Your task to perform on an android device: View the shopping cart on target.com. Add razer kraken to the cart on target.com Image 0: 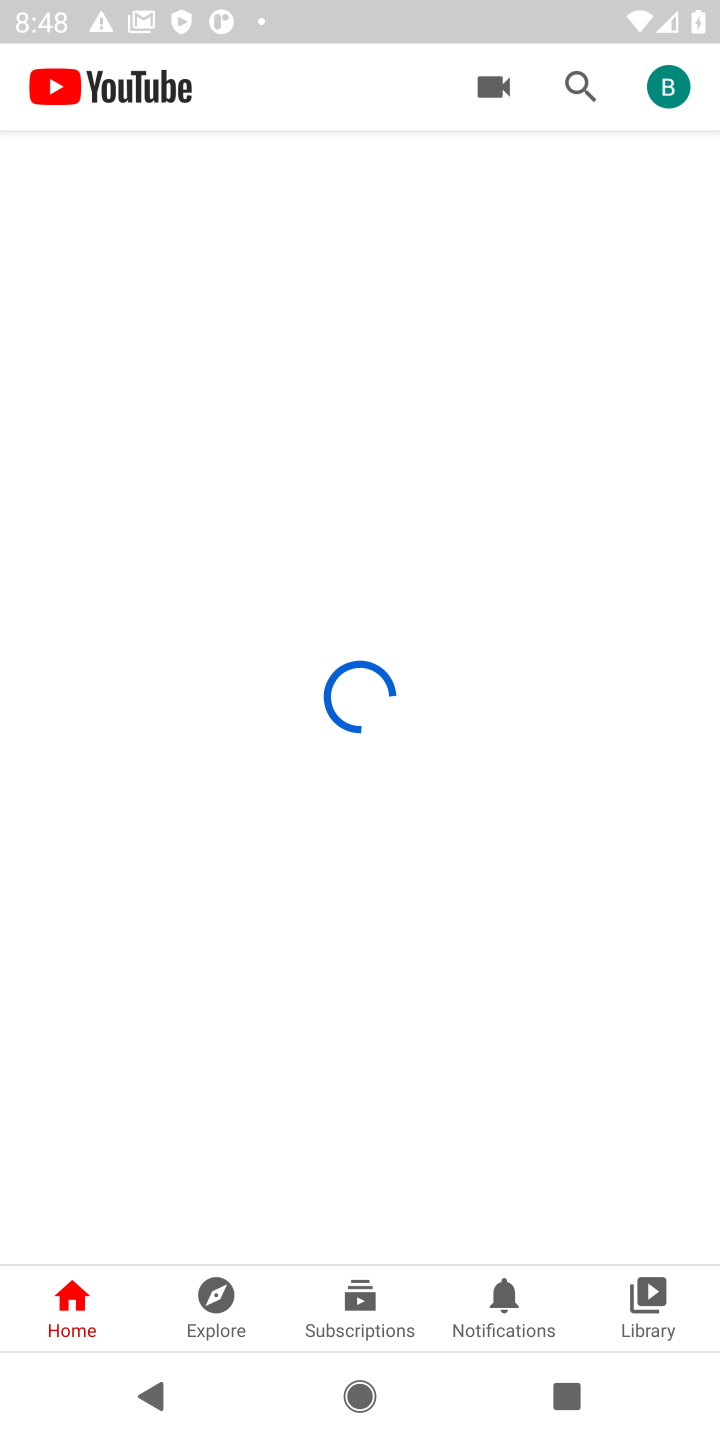
Step 0: press home button
Your task to perform on an android device: View the shopping cart on target.com. Add razer kraken to the cart on target.com Image 1: 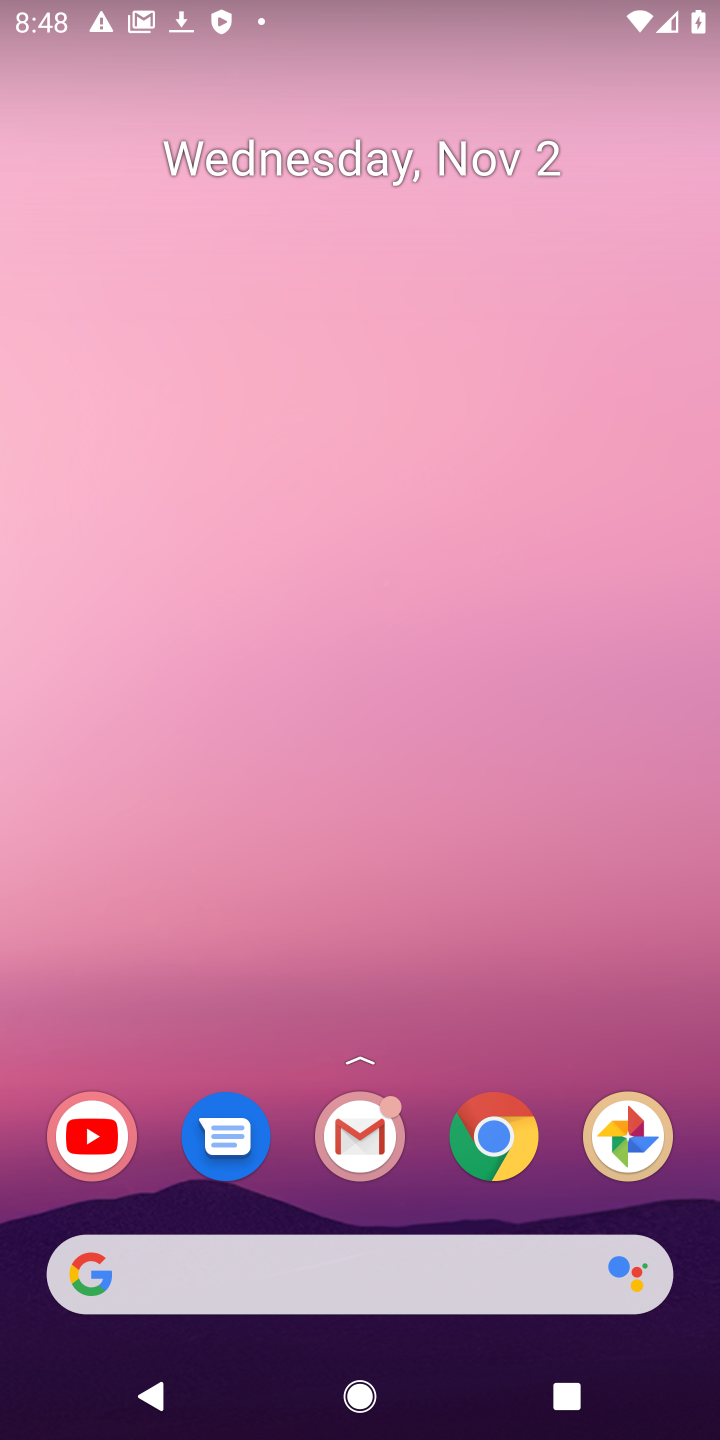
Step 1: drag from (340, 1180) to (382, 131)
Your task to perform on an android device: View the shopping cart on target.com. Add razer kraken to the cart on target.com Image 2: 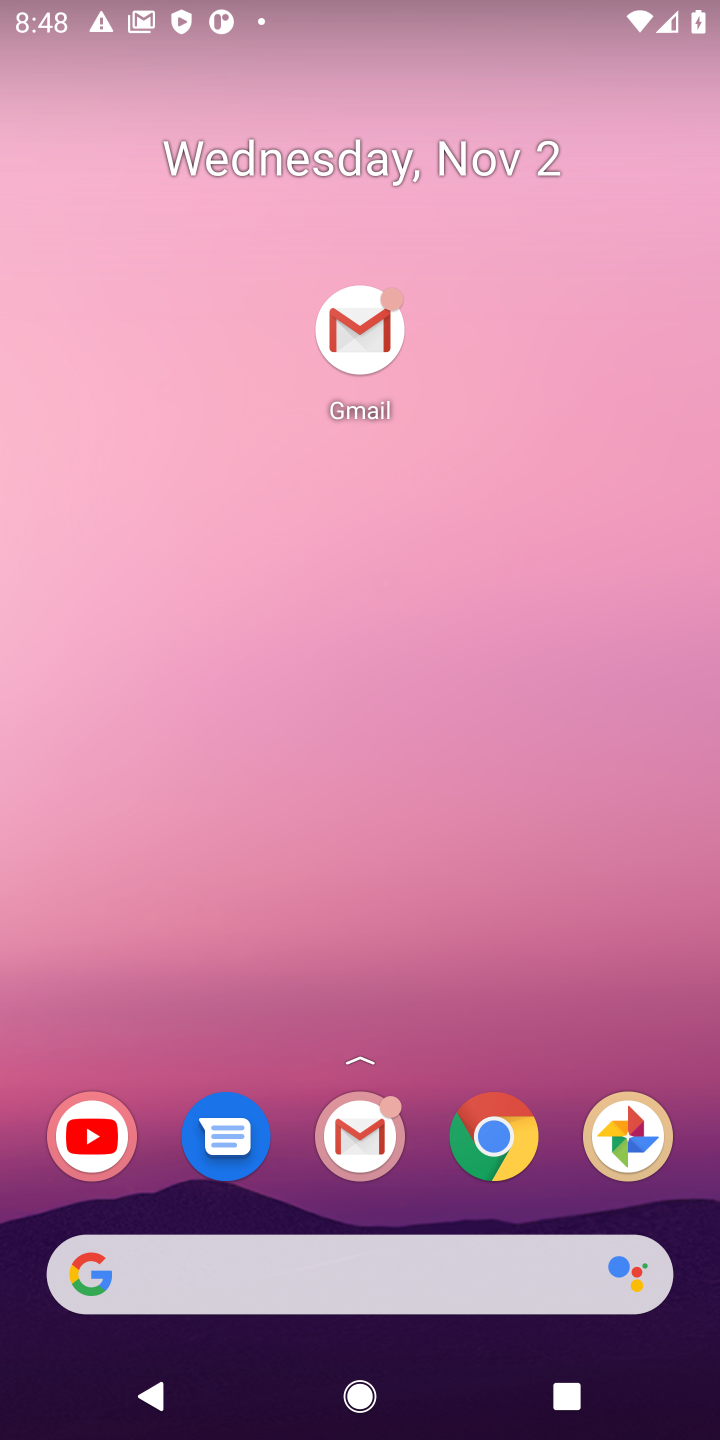
Step 2: drag from (317, 1188) to (331, 816)
Your task to perform on an android device: View the shopping cart on target.com. Add razer kraken to the cart on target.com Image 3: 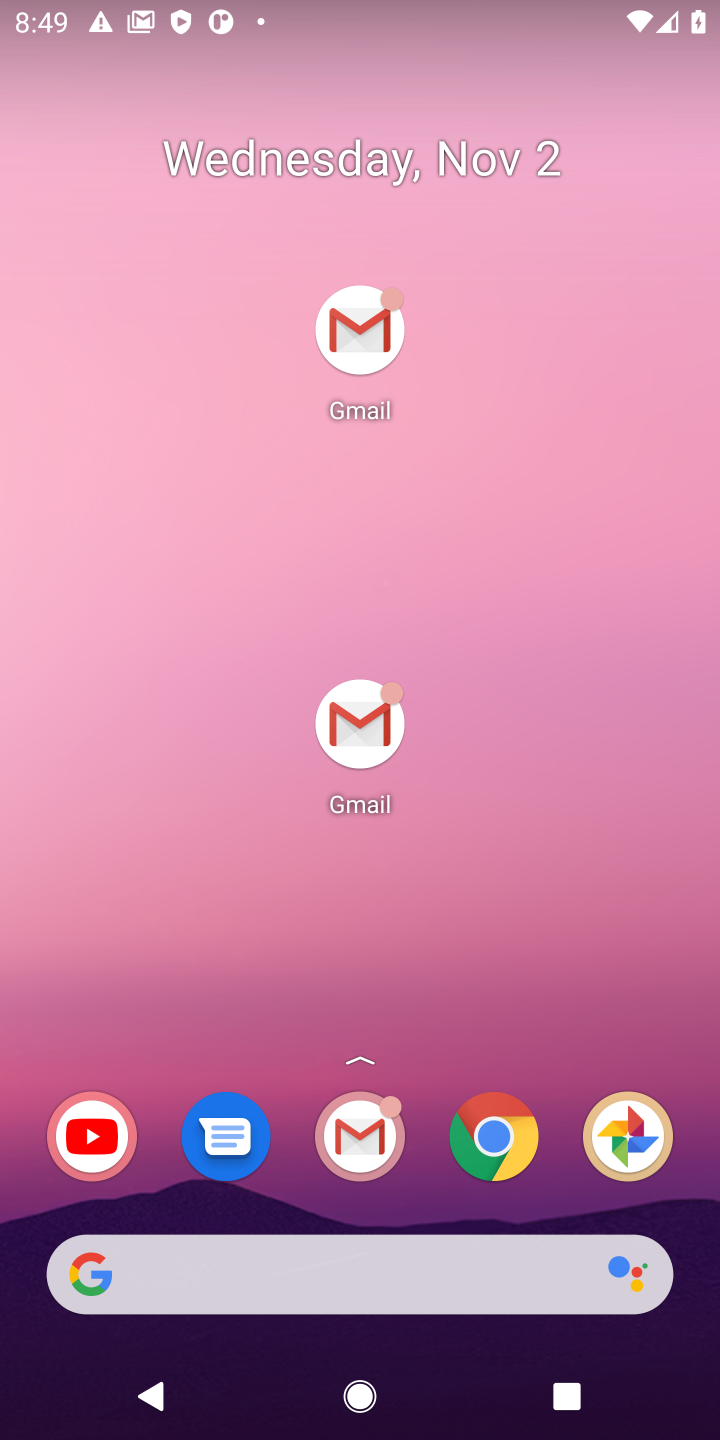
Step 3: drag from (507, 562) to (511, 148)
Your task to perform on an android device: View the shopping cart on target.com. Add razer kraken to the cart on target.com Image 4: 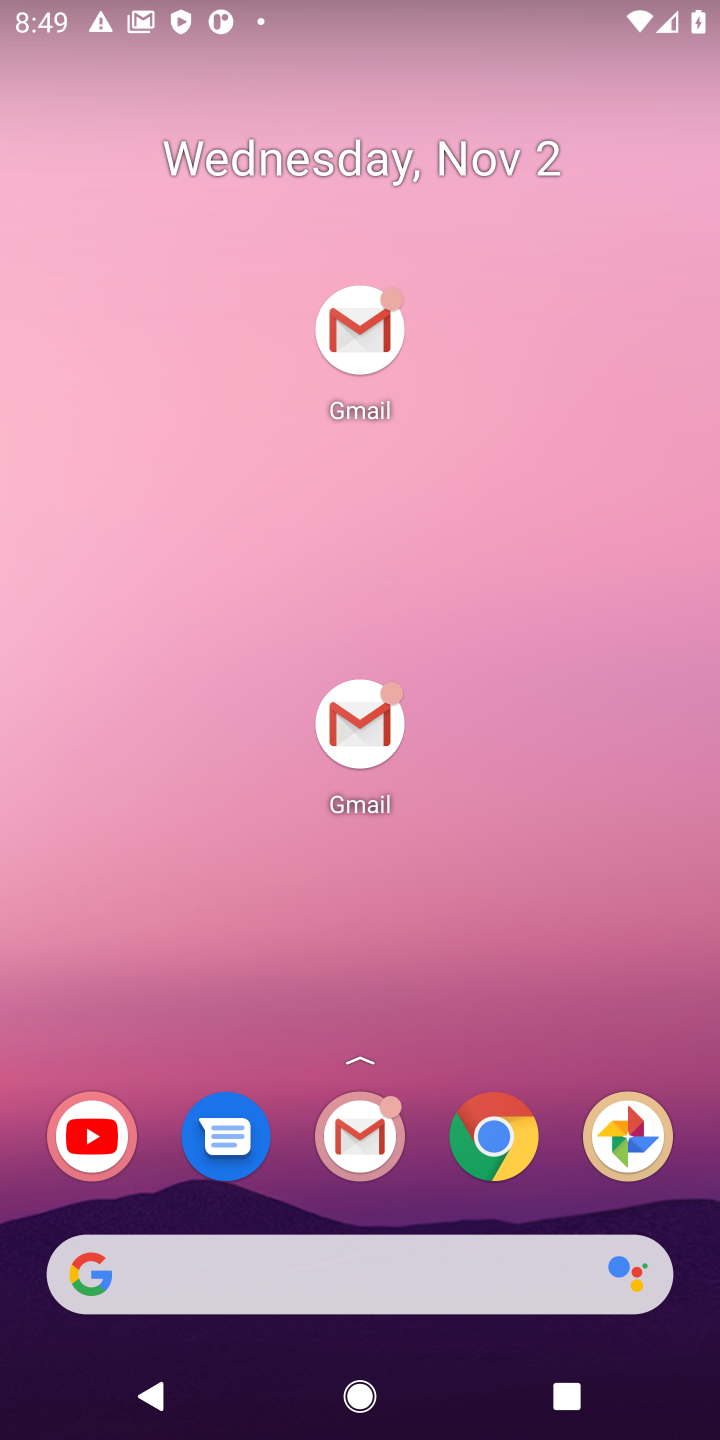
Step 4: drag from (471, 1091) to (490, 232)
Your task to perform on an android device: View the shopping cart on target.com. Add razer kraken to the cart on target.com Image 5: 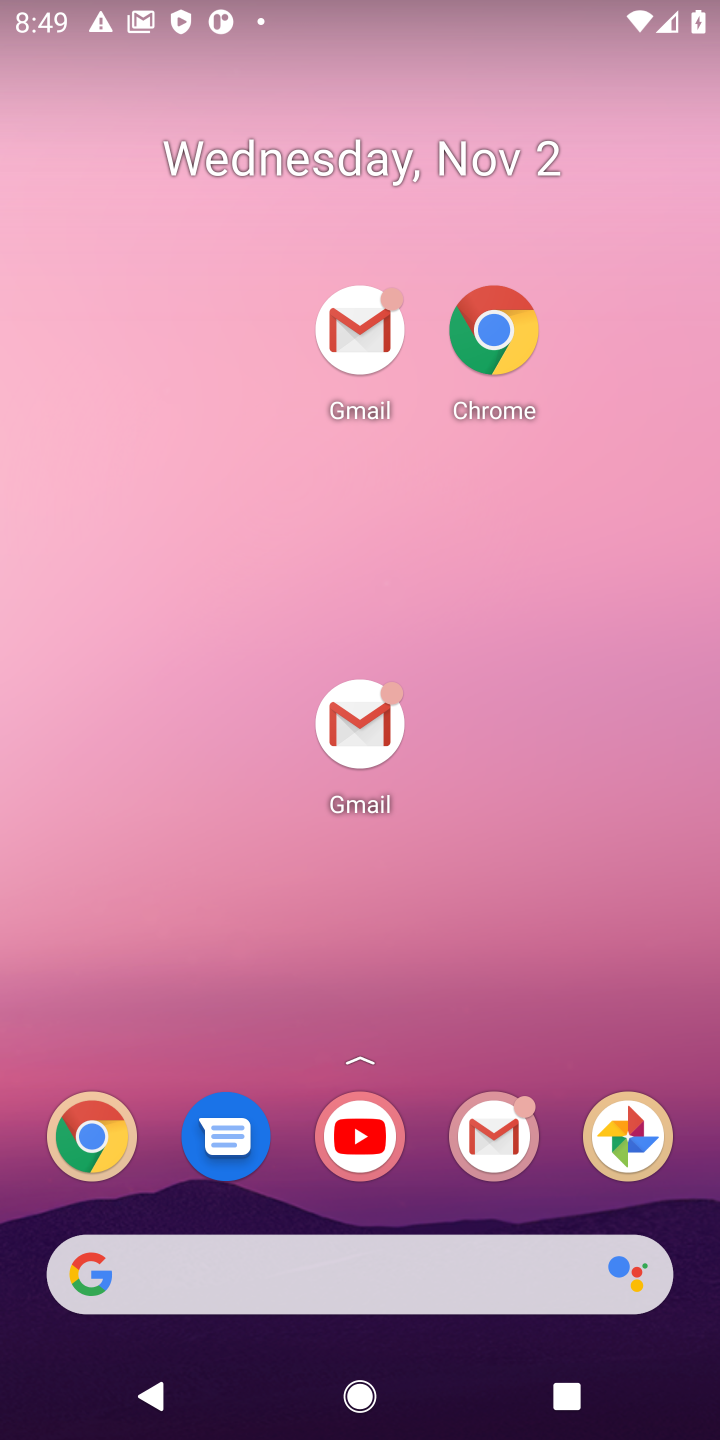
Step 5: drag from (375, 1245) to (320, 208)
Your task to perform on an android device: View the shopping cart on target.com. Add razer kraken to the cart on target.com Image 6: 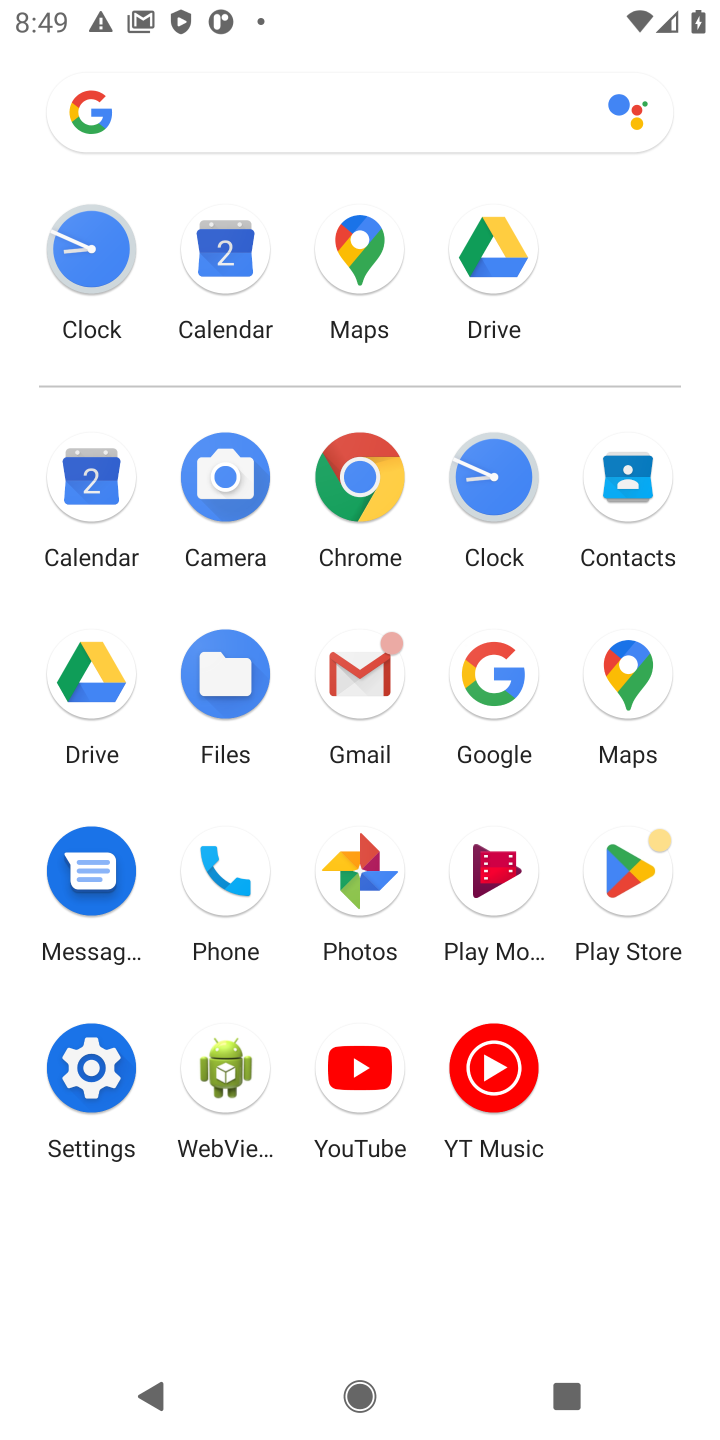
Step 6: click (487, 668)
Your task to perform on an android device: View the shopping cart on target.com. Add razer kraken to the cart on target.com Image 7: 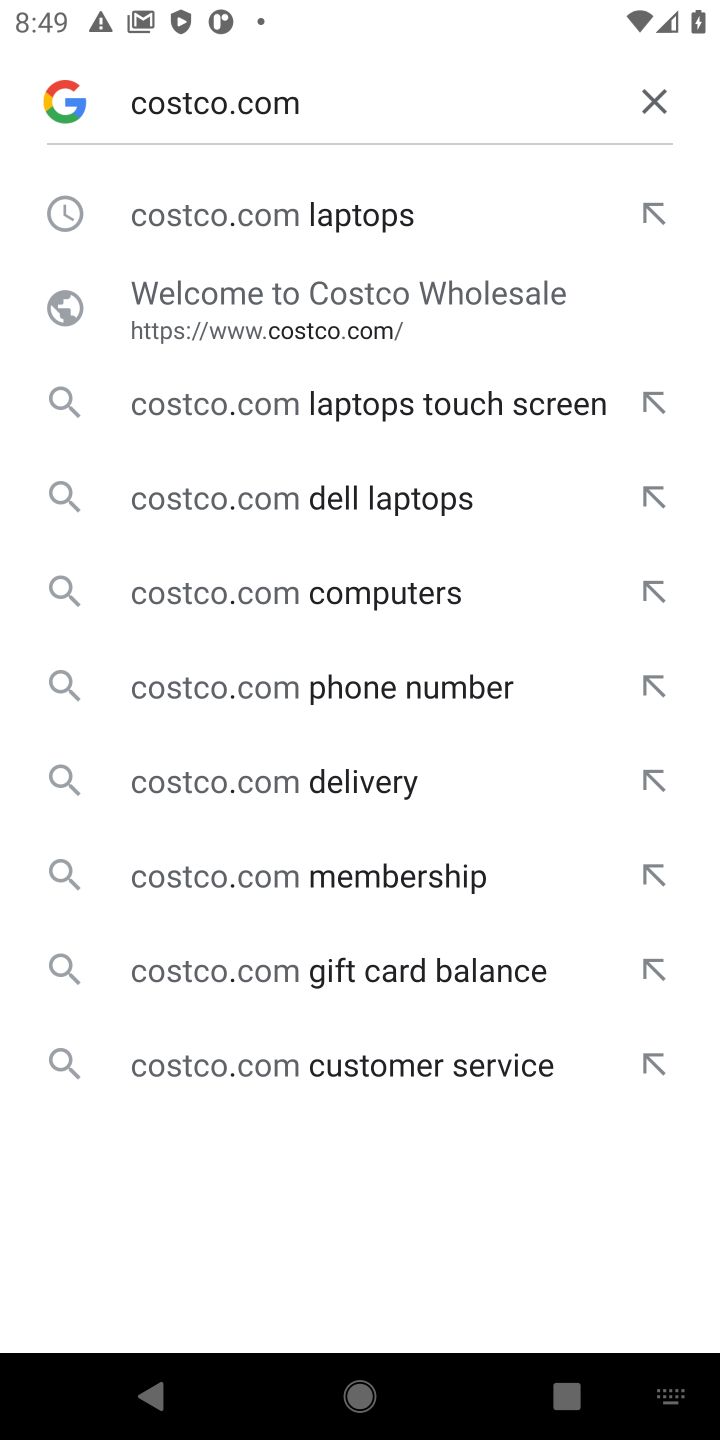
Step 7: click (650, 94)
Your task to perform on an android device: View the shopping cart on target.com. Add razer kraken to the cart on target.com Image 8: 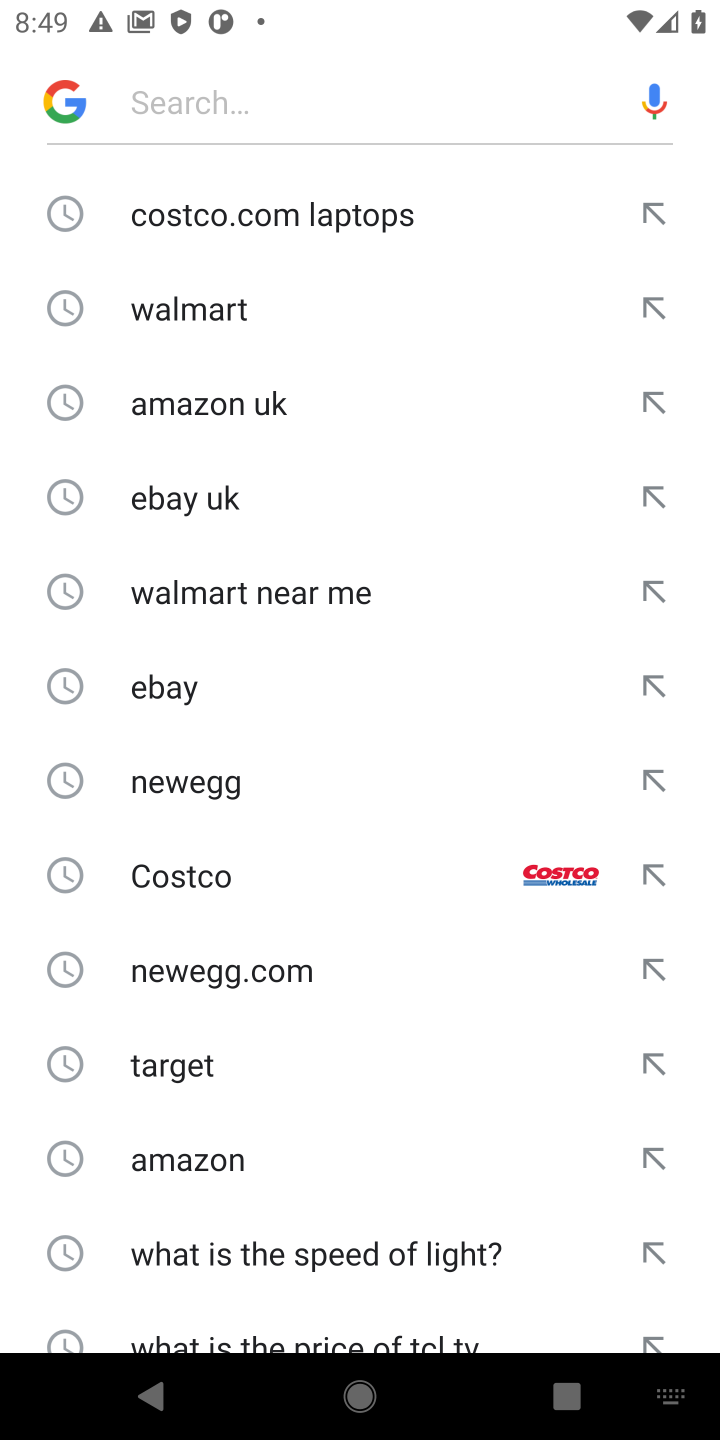
Step 8: click (371, 99)
Your task to perform on an android device: View the shopping cart on target.com. Add razer kraken to the cart on target.com Image 9: 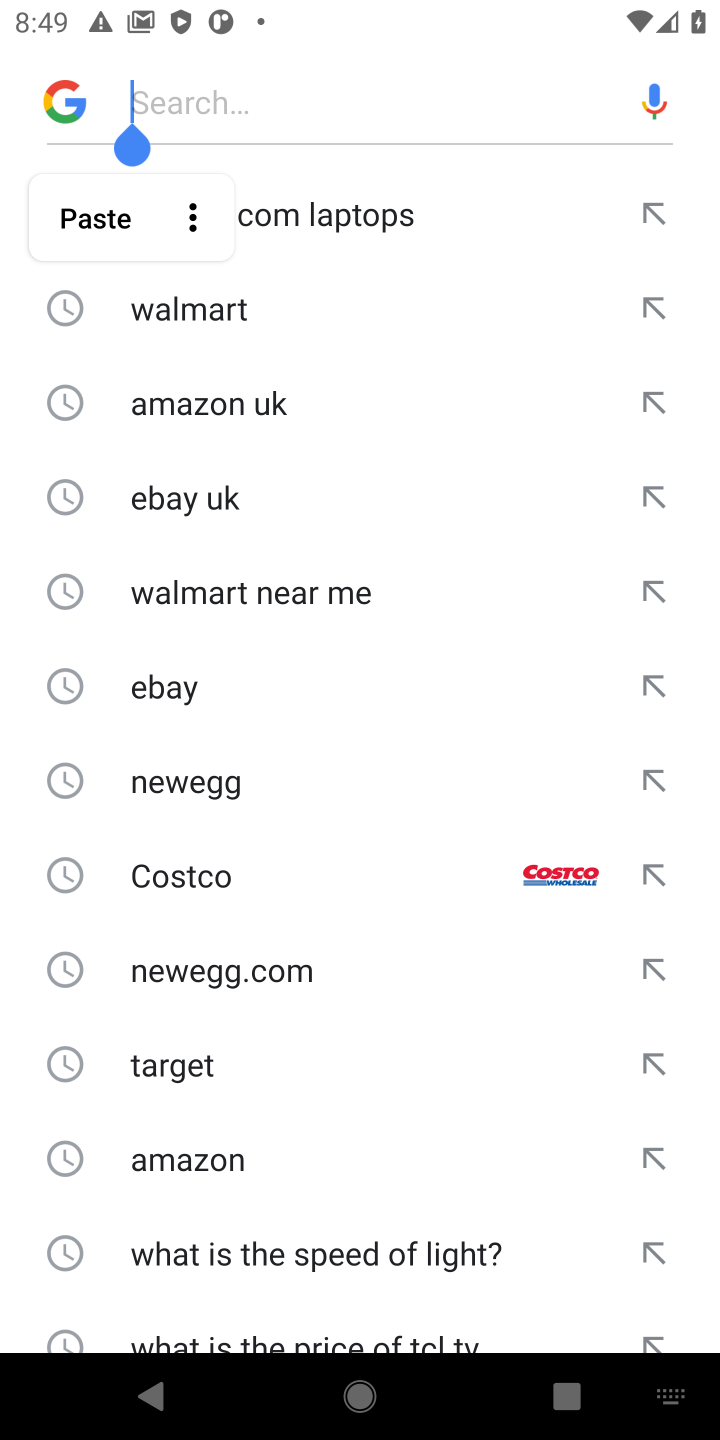
Step 9: type " target.com "
Your task to perform on an android device: View the shopping cart on target.com. Add razer kraken to the cart on target.com Image 10: 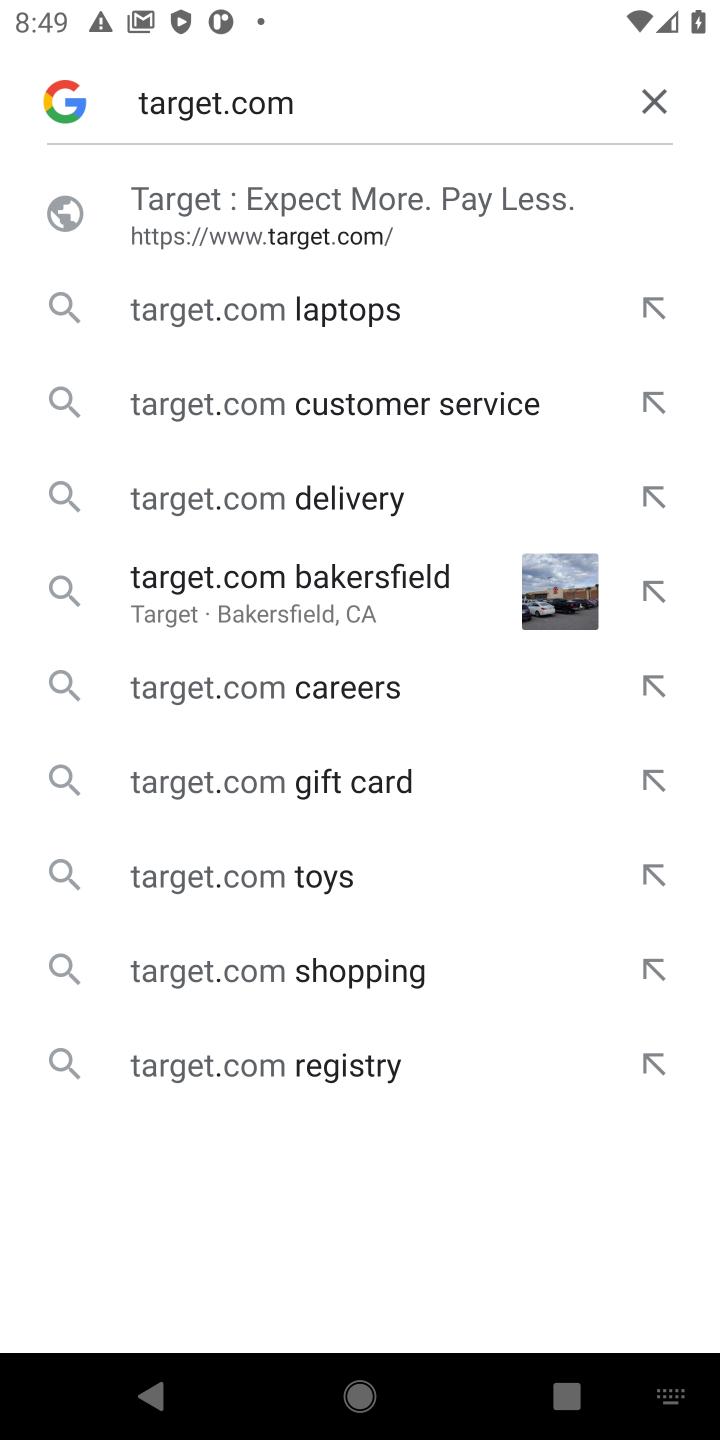
Step 10: click (359, 186)
Your task to perform on an android device: View the shopping cart on target.com. Add razer kraken to the cart on target.com Image 11: 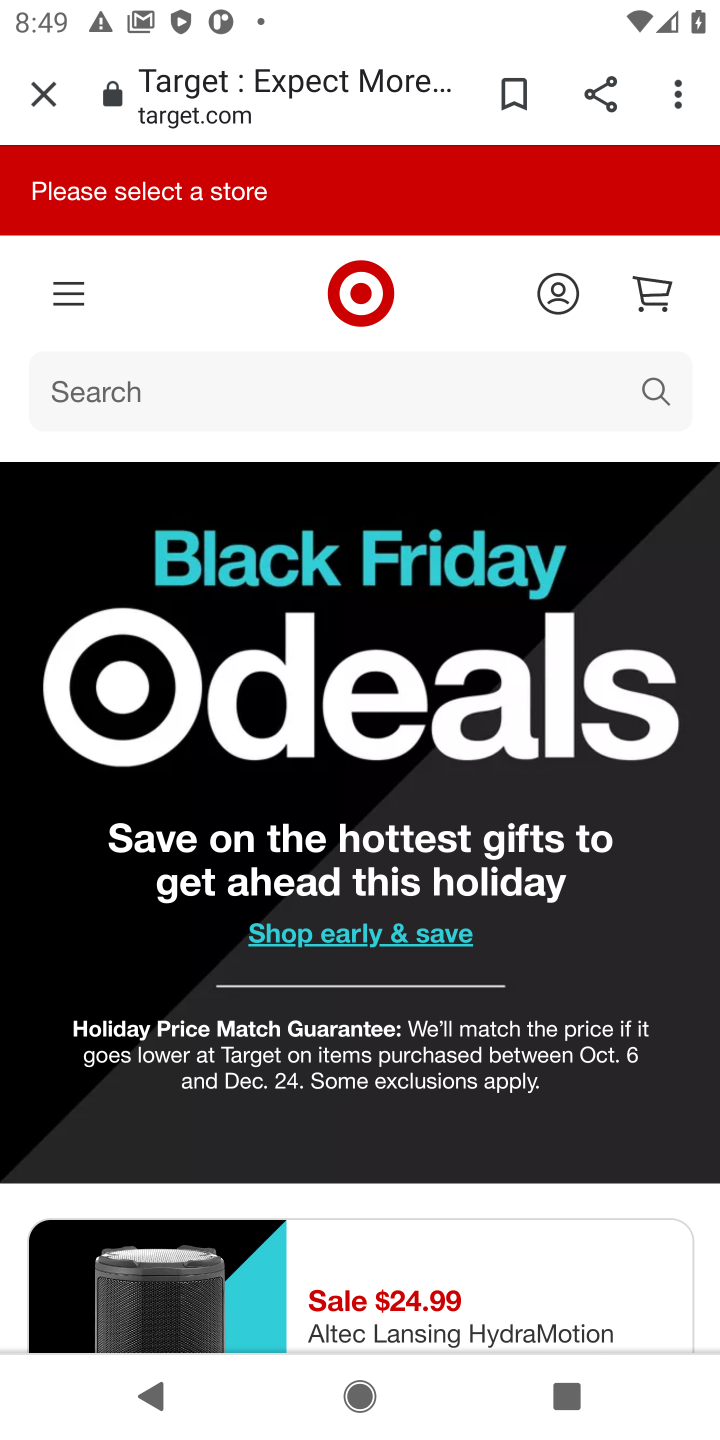
Step 11: click (338, 369)
Your task to perform on an android device: View the shopping cart on target.com. Add razer kraken to the cart on target.com Image 12: 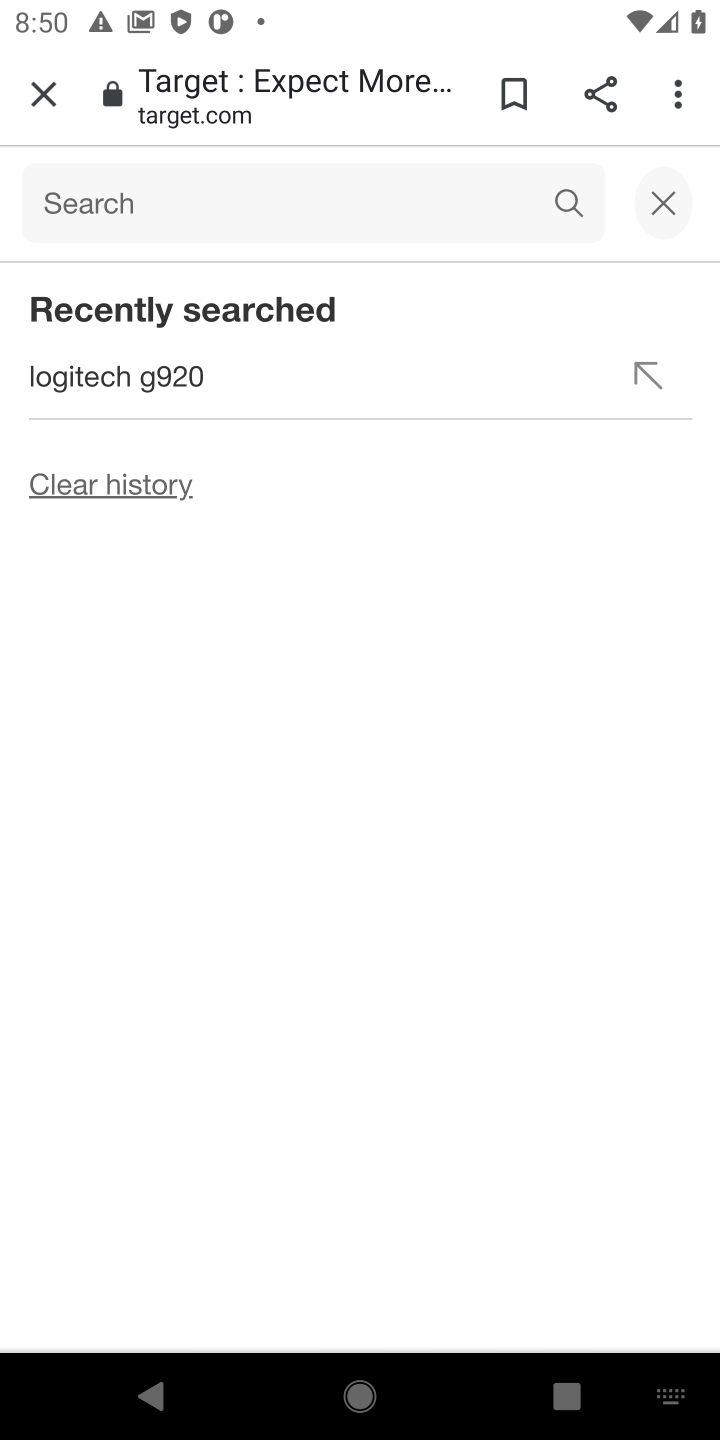
Step 12: click (338, 191)
Your task to perform on an android device: View the shopping cart on target.com. Add razer kraken to the cart on target.com Image 13: 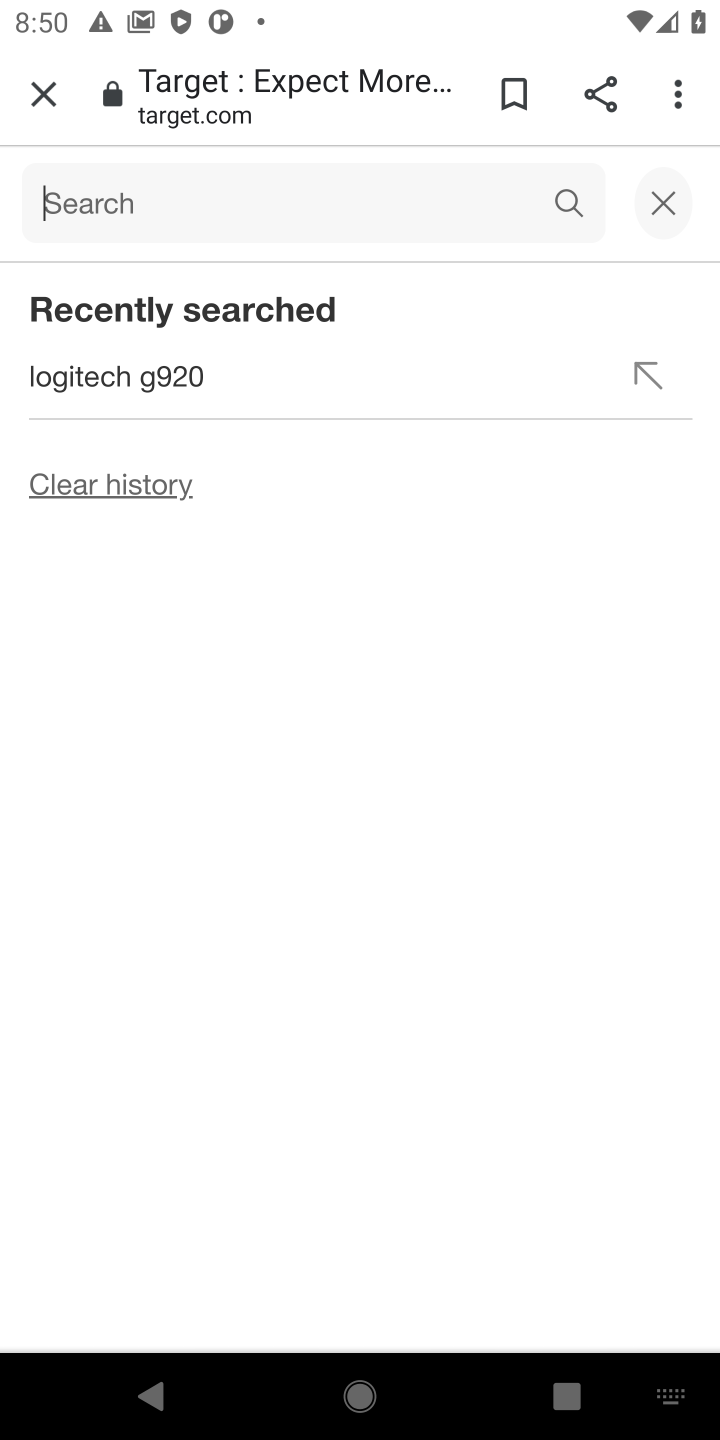
Step 13: type " razer kraken  "
Your task to perform on an android device: View the shopping cart on target.com. Add razer kraken to the cart on target.com Image 14: 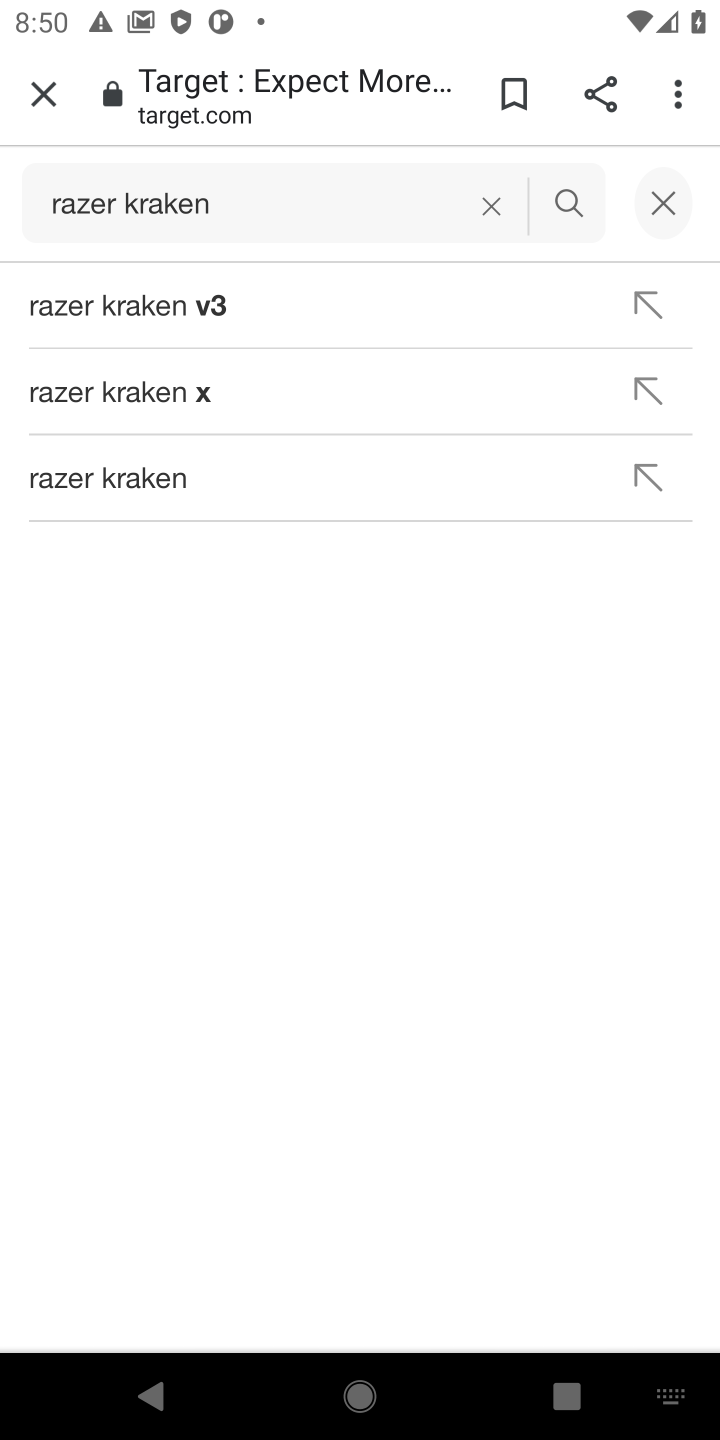
Step 14: click (196, 466)
Your task to perform on an android device: View the shopping cart on target.com. Add razer kraken to the cart on target.com Image 15: 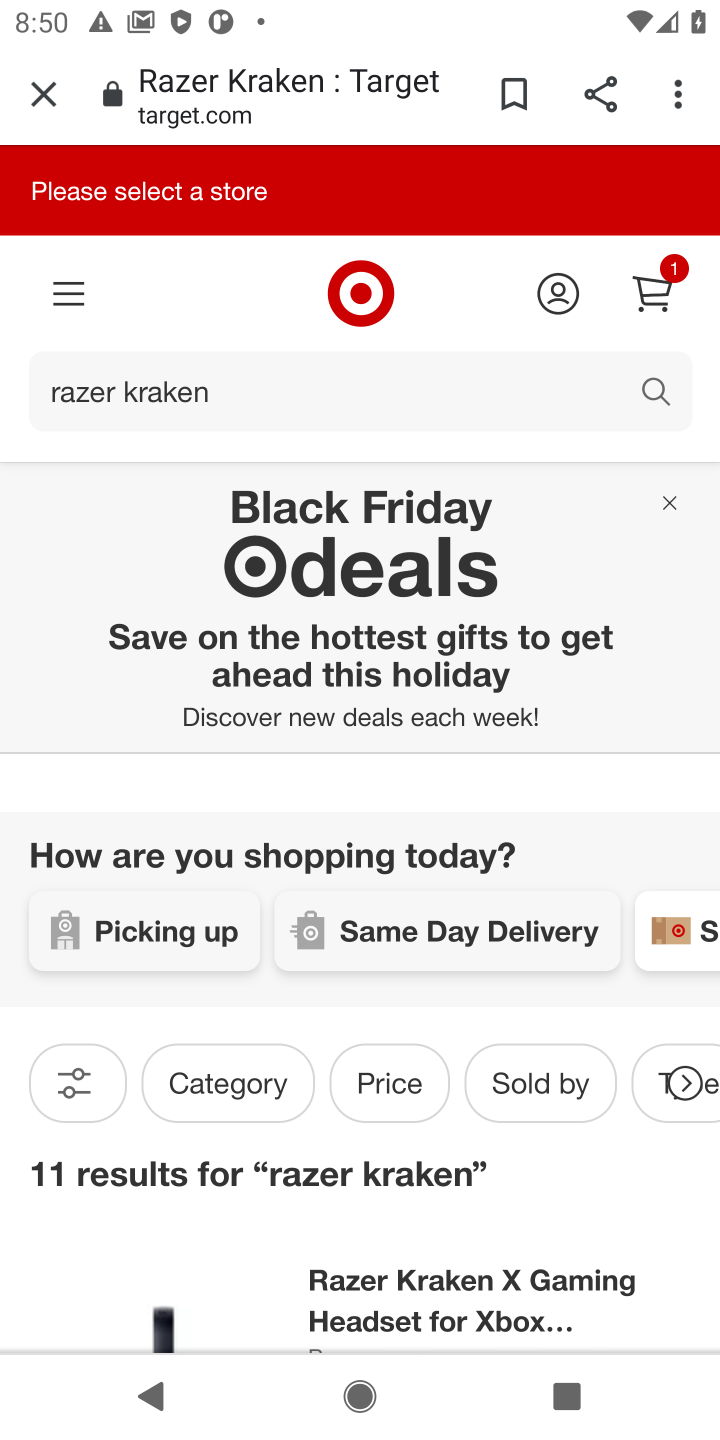
Step 15: drag from (433, 1246) to (455, 534)
Your task to perform on an android device: View the shopping cart on target.com. Add razer kraken to the cart on target.com Image 16: 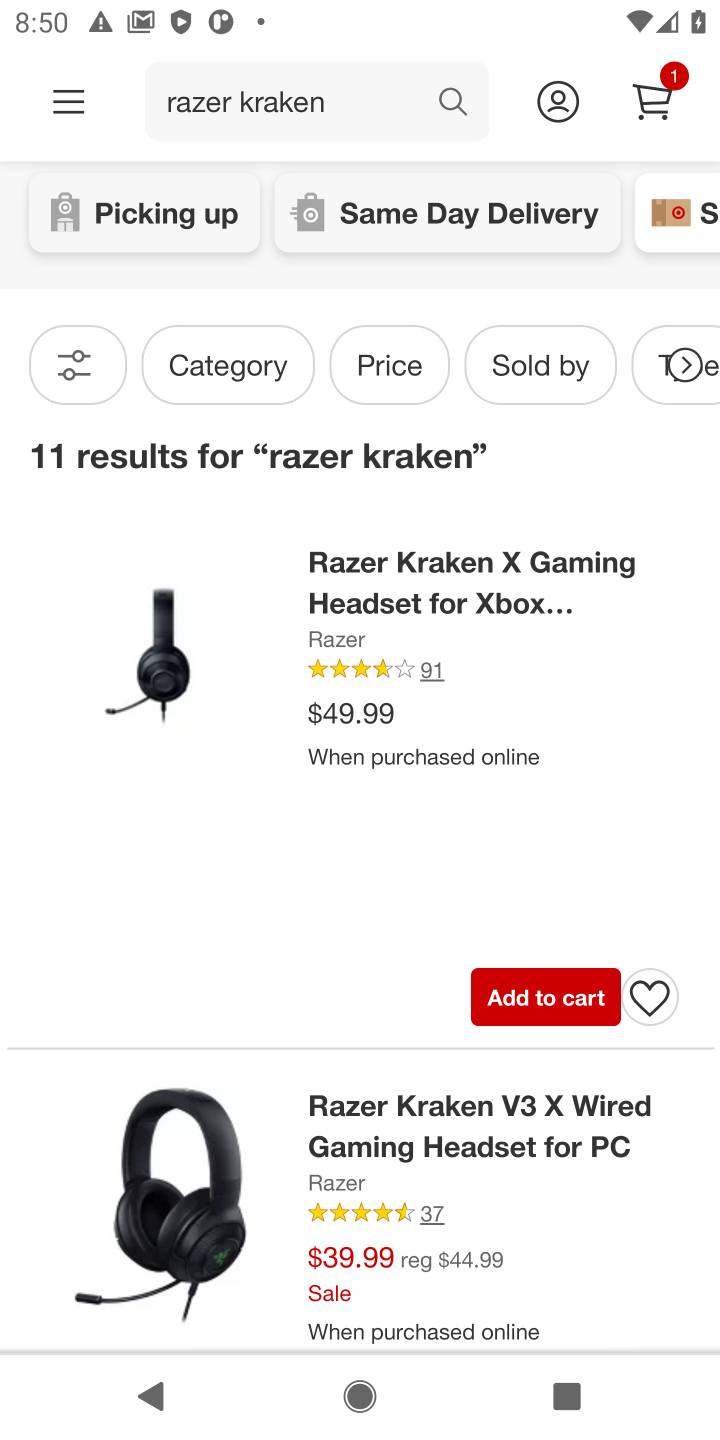
Step 16: click (532, 974)
Your task to perform on an android device: View the shopping cart on target.com. Add razer kraken to the cart on target.com Image 17: 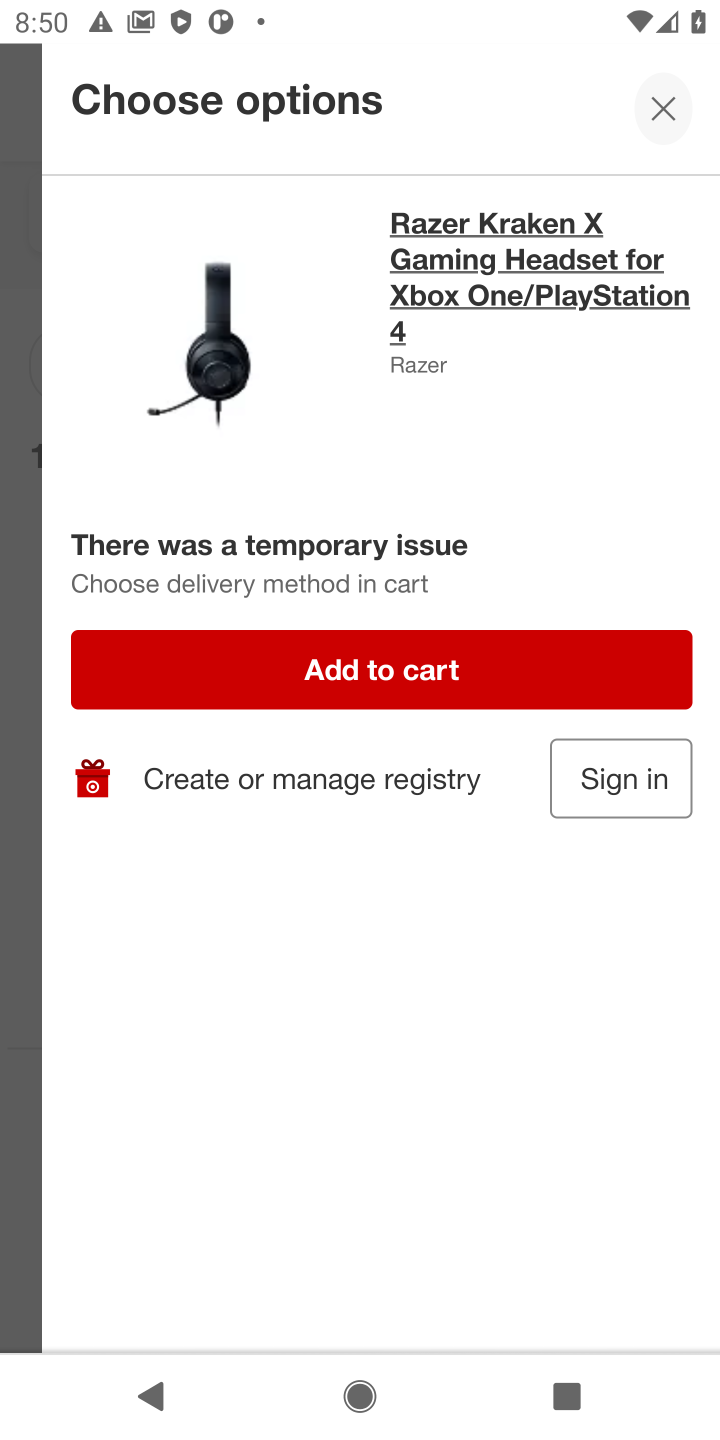
Step 17: click (345, 647)
Your task to perform on an android device: View the shopping cart on target.com. Add razer kraken to the cart on target.com Image 18: 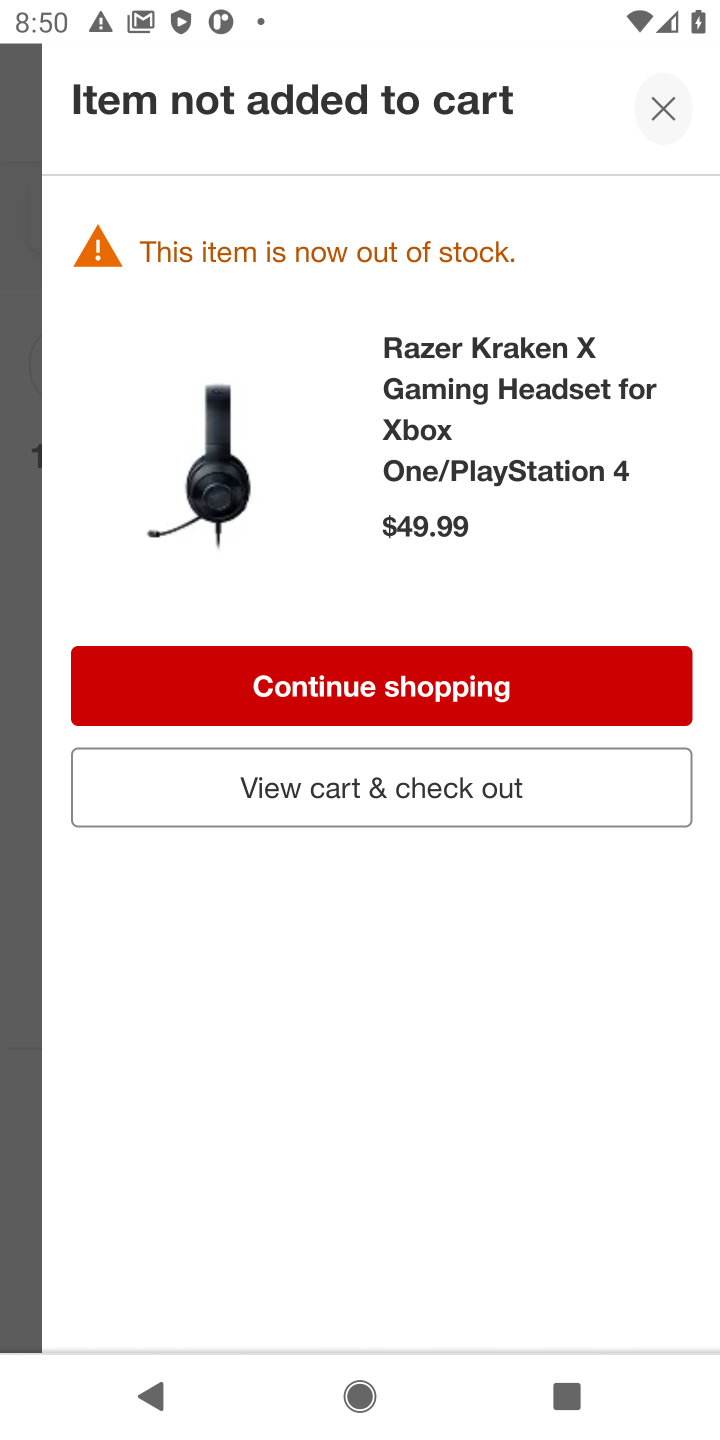
Step 18: task complete